Your task to perform on an android device: set default search engine in the chrome app Image 0: 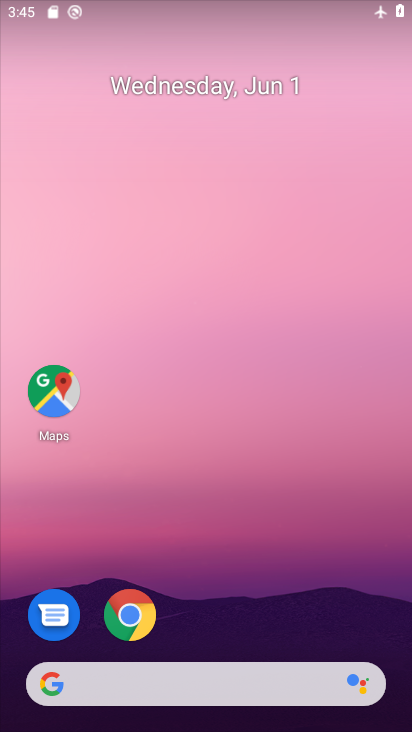
Step 0: click (125, 615)
Your task to perform on an android device: set default search engine in the chrome app Image 1: 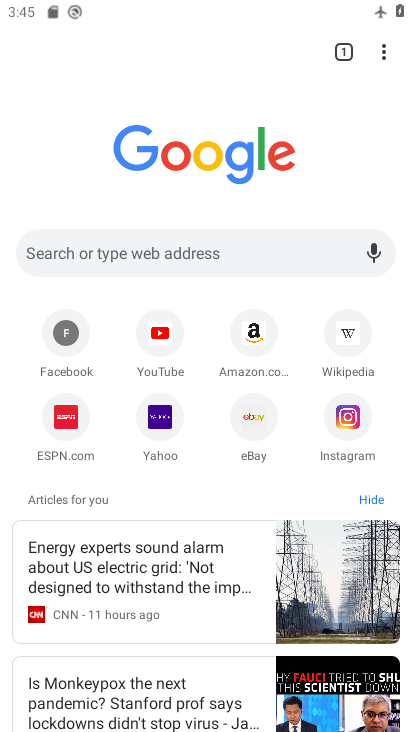
Step 1: drag from (385, 52) to (211, 451)
Your task to perform on an android device: set default search engine in the chrome app Image 2: 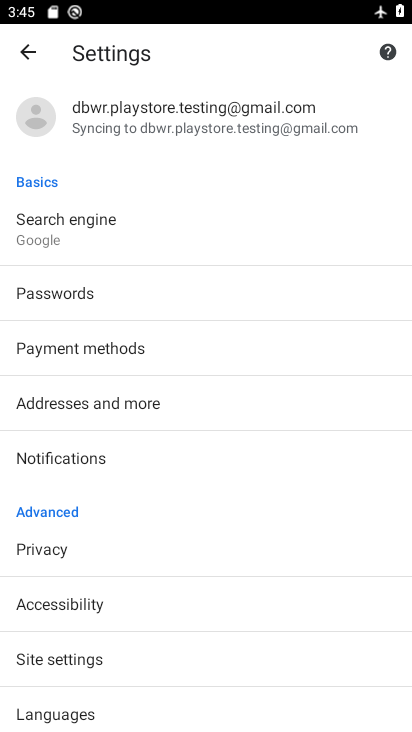
Step 2: click (111, 230)
Your task to perform on an android device: set default search engine in the chrome app Image 3: 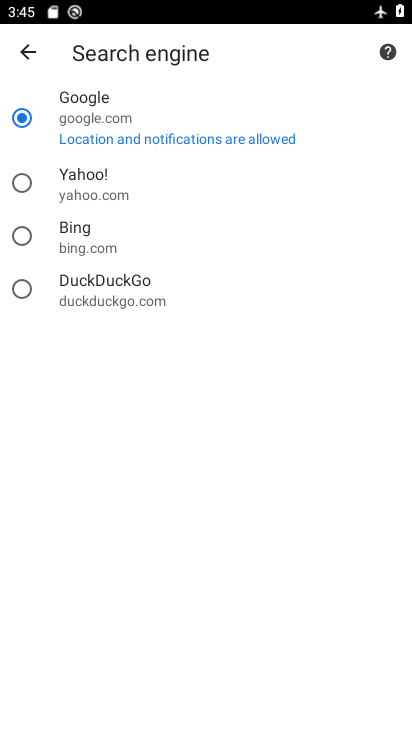
Step 3: task complete